Your task to perform on an android device: snooze an email in the gmail app Image 0: 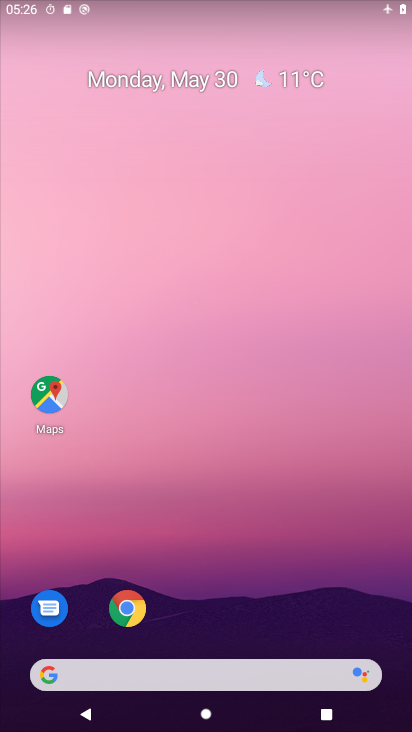
Step 0: drag from (283, 610) to (236, 19)
Your task to perform on an android device: snooze an email in the gmail app Image 1: 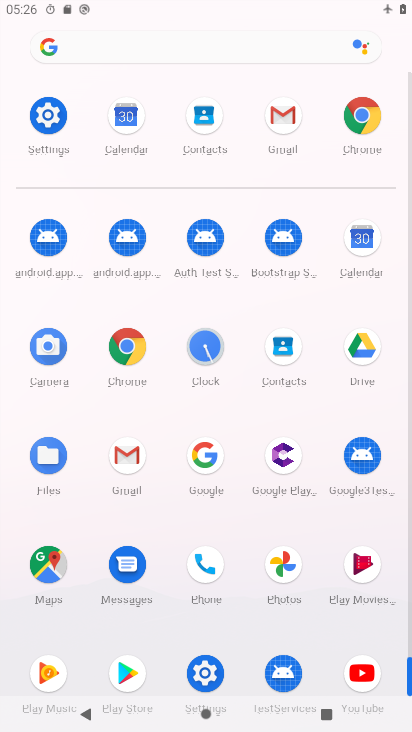
Step 1: click (125, 451)
Your task to perform on an android device: snooze an email in the gmail app Image 2: 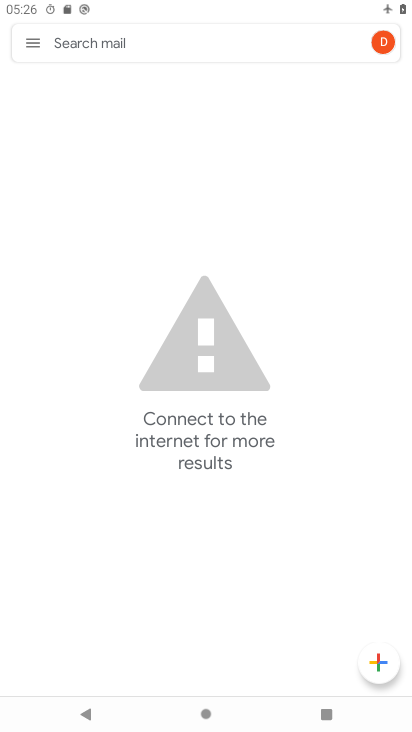
Step 2: task complete